Your task to perform on an android device: open device folders in google photos Image 0: 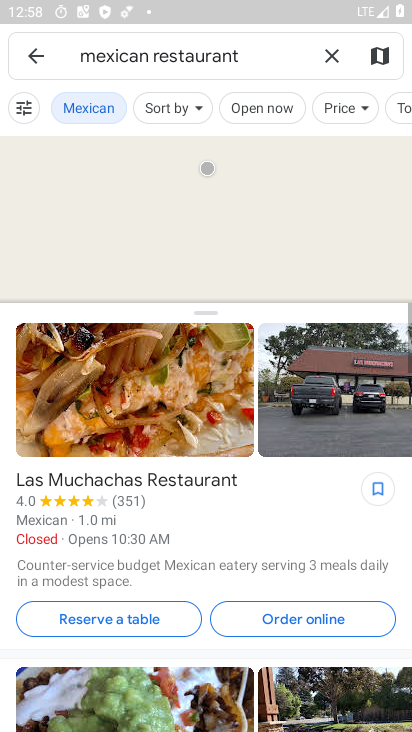
Step 0: press home button
Your task to perform on an android device: open device folders in google photos Image 1: 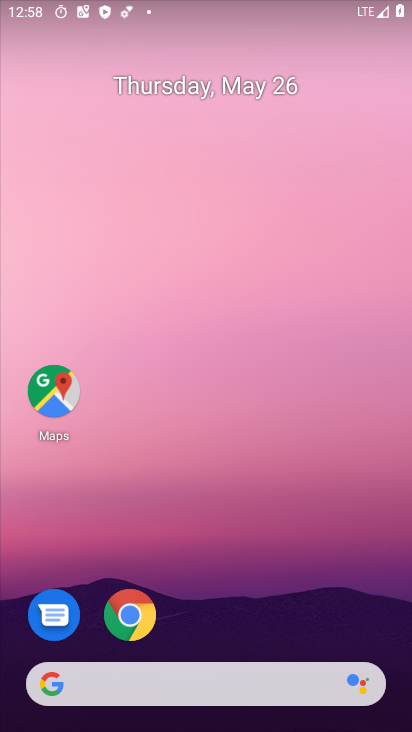
Step 1: drag from (240, 630) to (176, 246)
Your task to perform on an android device: open device folders in google photos Image 2: 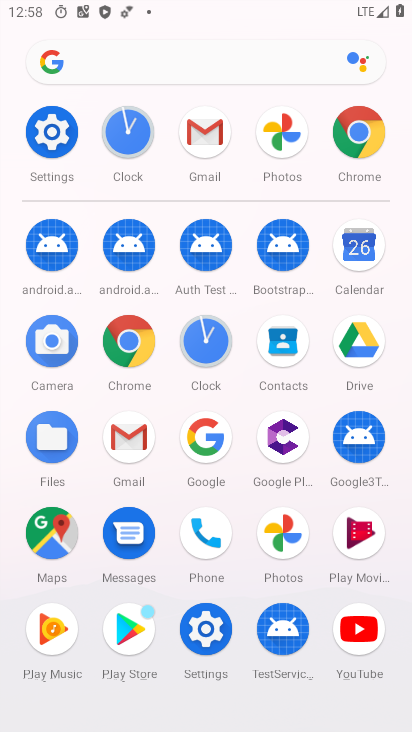
Step 2: click (288, 138)
Your task to perform on an android device: open device folders in google photos Image 3: 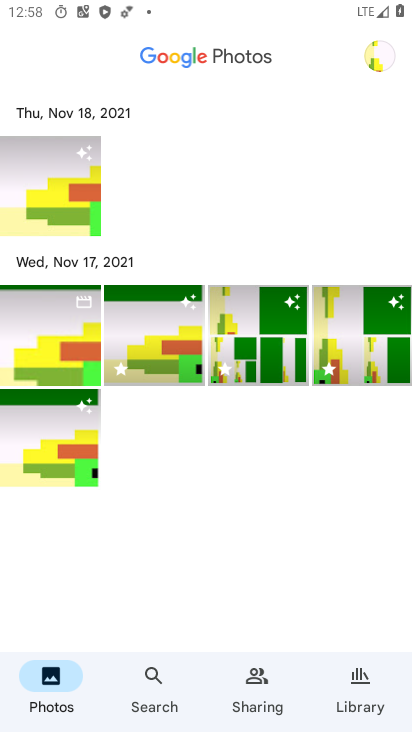
Step 3: click (369, 684)
Your task to perform on an android device: open device folders in google photos Image 4: 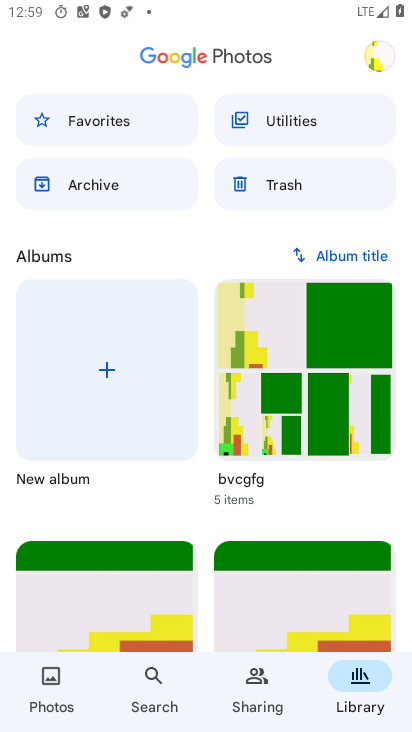
Step 4: task complete